Your task to perform on an android device: Go to Reddit.com Image 0: 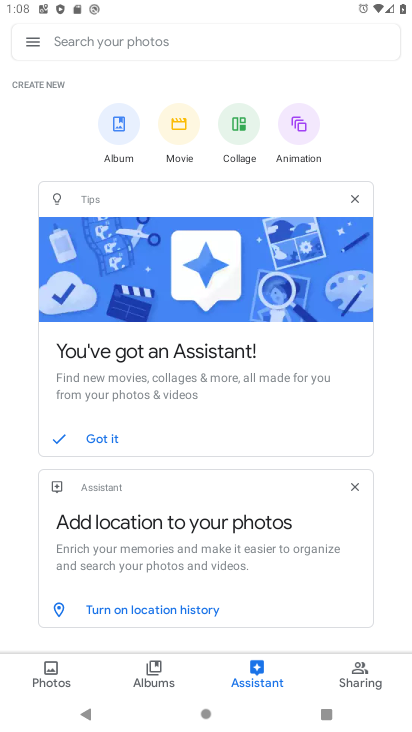
Step 0: press home button
Your task to perform on an android device: Go to Reddit.com Image 1: 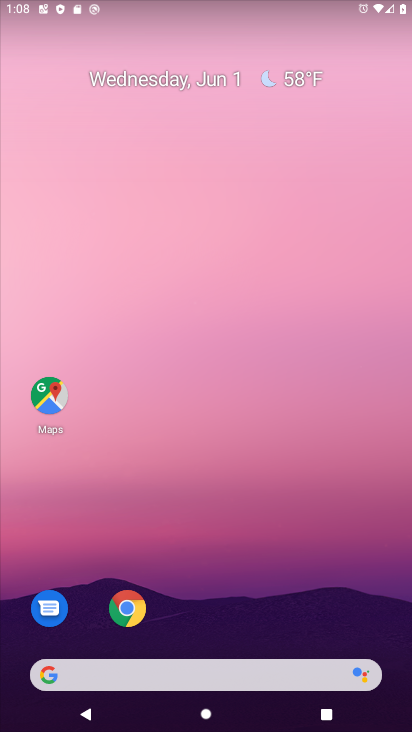
Step 1: click (124, 604)
Your task to perform on an android device: Go to Reddit.com Image 2: 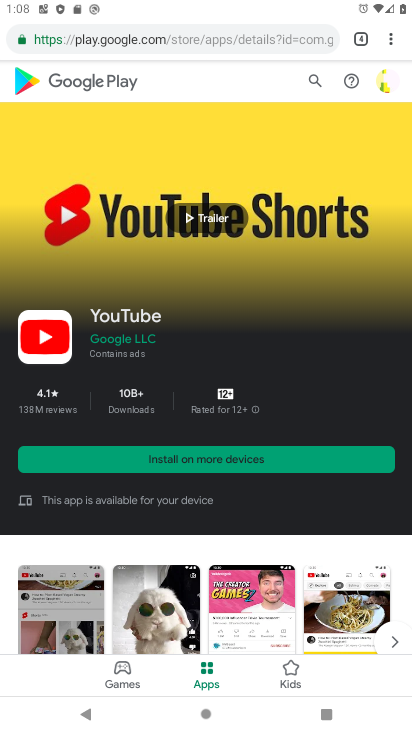
Step 2: click (368, 39)
Your task to perform on an android device: Go to Reddit.com Image 3: 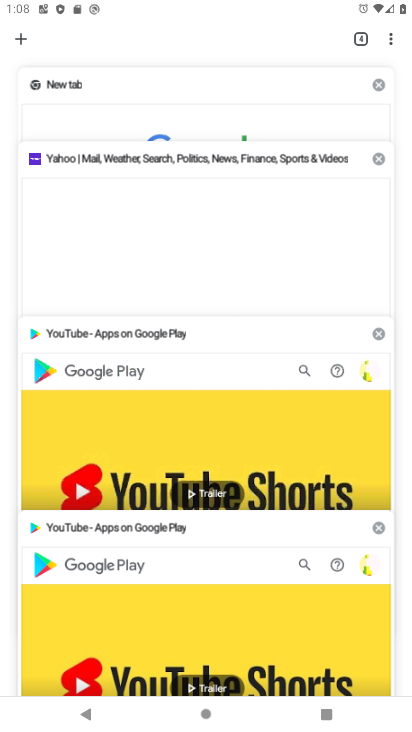
Step 3: drag from (230, 132) to (234, 499)
Your task to perform on an android device: Go to Reddit.com Image 4: 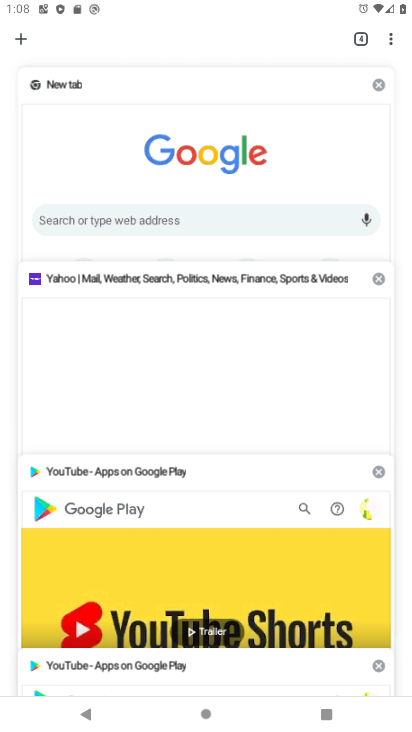
Step 4: click (226, 161)
Your task to perform on an android device: Go to Reddit.com Image 5: 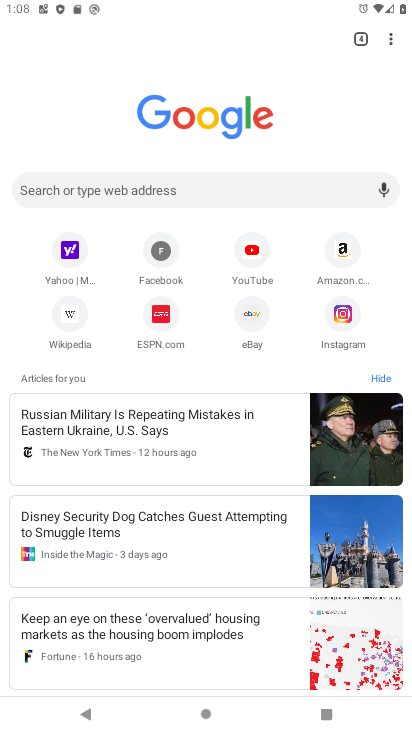
Step 5: click (118, 182)
Your task to perform on an android device: Go to Reddit.com Image 6: 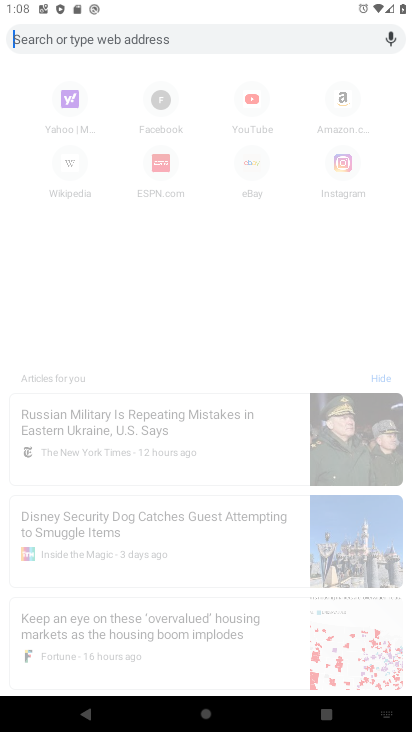
Step 6: type "Reddit.com"
Your task to perform on an android device: Go to Reddit.com Image 7: 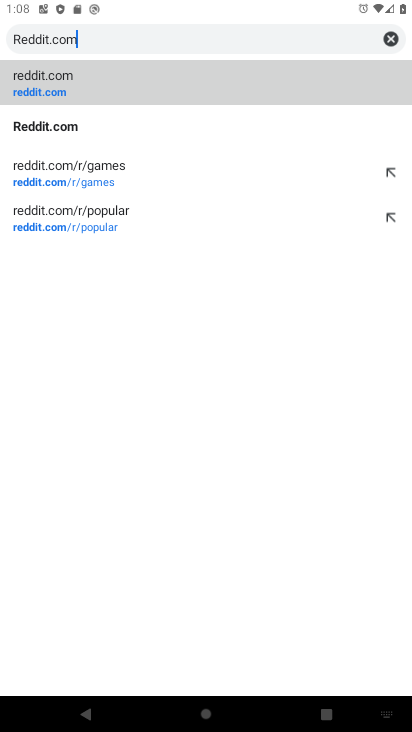
Step 7: click (313, 94)
Your task to perform on an android device: Go to Reddit.com Image 8: 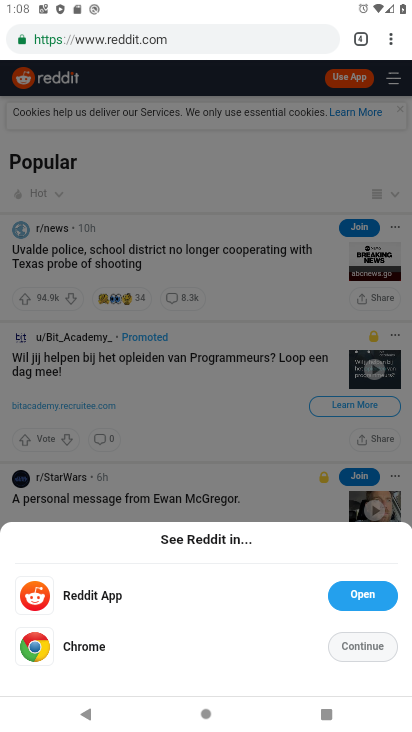
Step 8: task complete